Your task to perform on an android device: open chrome privacy settings Image 0: 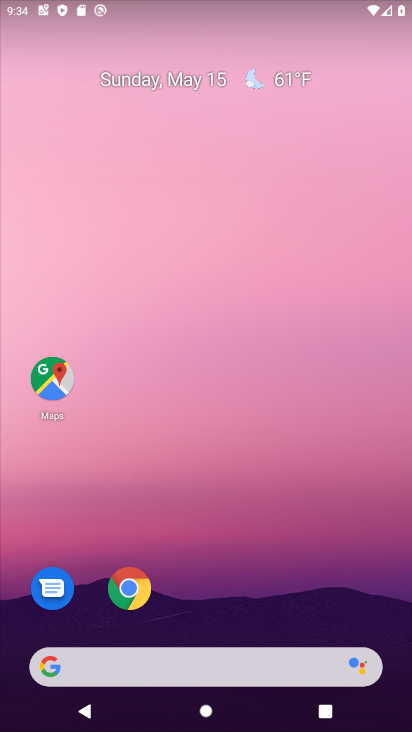
Step 0: click (132, 593)
Your task to perform on an android device: open chrome privacy settings Image 1: 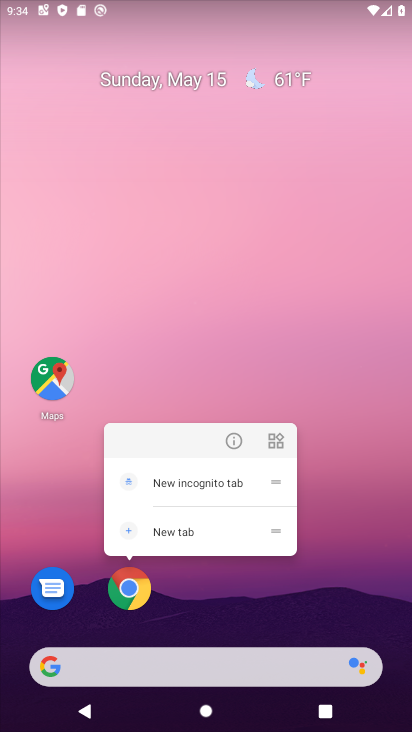
Step 1: click (140, 594)
Your task to perform on an android device: open chrome privacy settings Image 2: 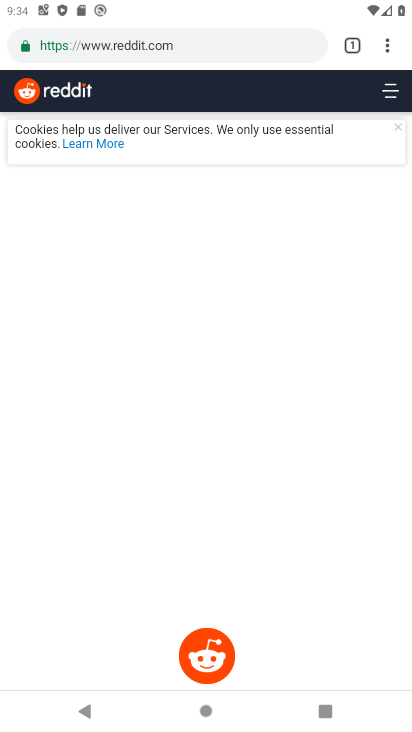
Step 2: click (373, 47)
Your task to perform on an android device: open chrome privacy settings Image 3: 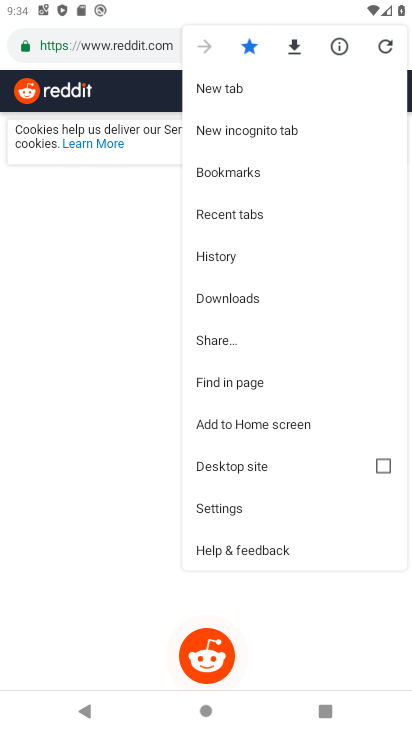
Step 3: click (219, 509)
Your task to perform on an android device: open chrome privacy settings Image 4: 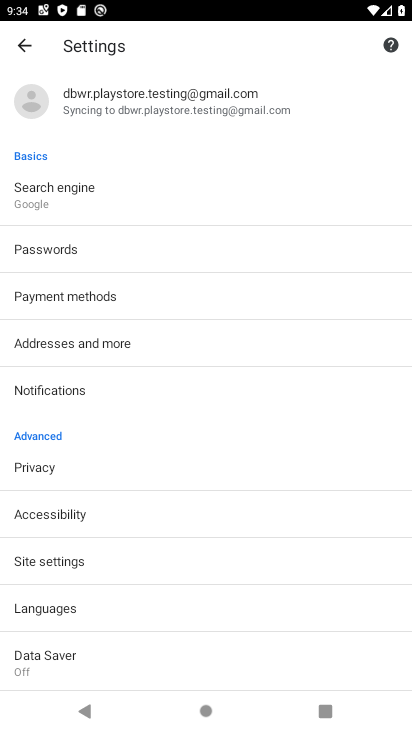
Step 4: drag from (95, 545) to (148, 263)
Your task to perform on an android device: open chrome privacy settings Image 5: 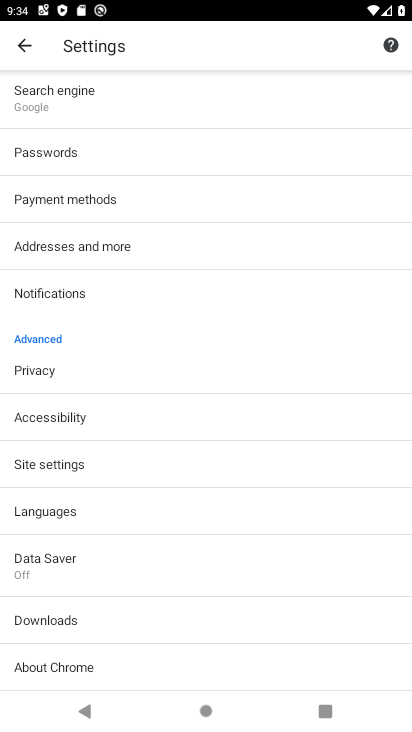
Step 5: click (43, 366)
Your task to perform on an android device: open chrome privacy settings Image 6: 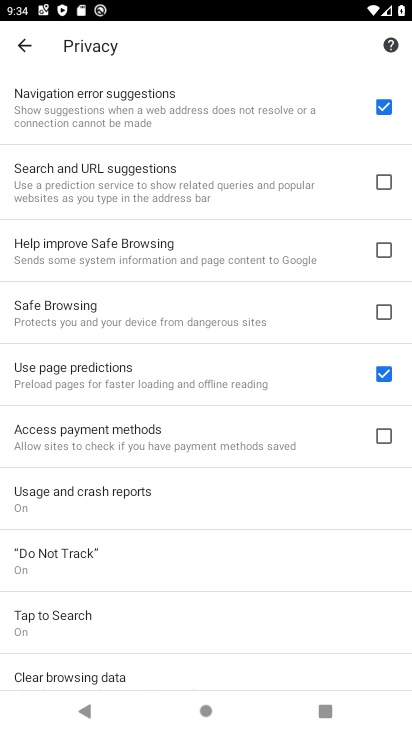
Step 6: task complete